Your task to perform on an android device: Show me recent news Image 0: 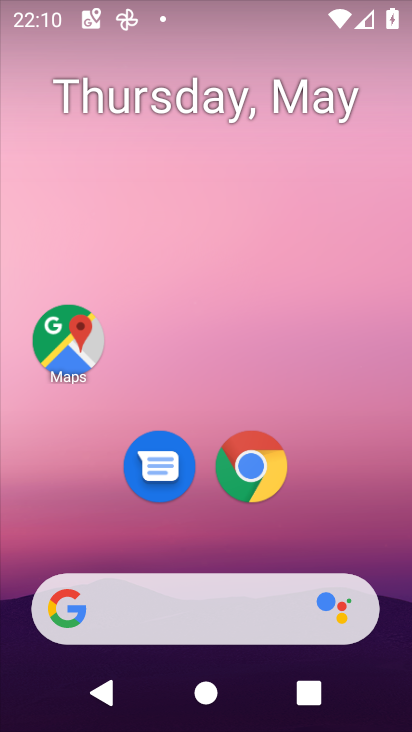
Step 0: drag from (345, 540) to (346, 204)
Your task to perform on an android device: Show me recent news Image 1: 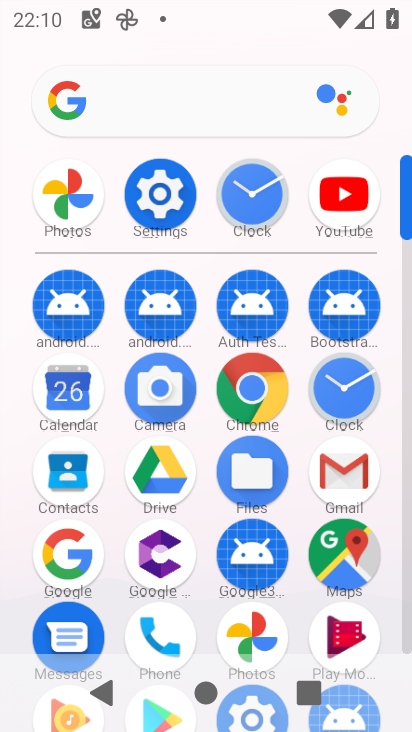
Step 1: click (157, 216)
Your task to perform on an android device: Show me recent news Image 2: 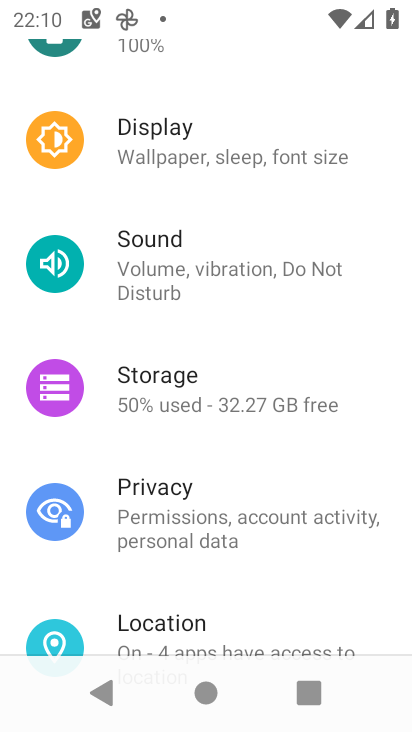
Step 2: drag from (209, 268) to (201, 559)
Your task to perform on an android device: Show me recent news Image 3: 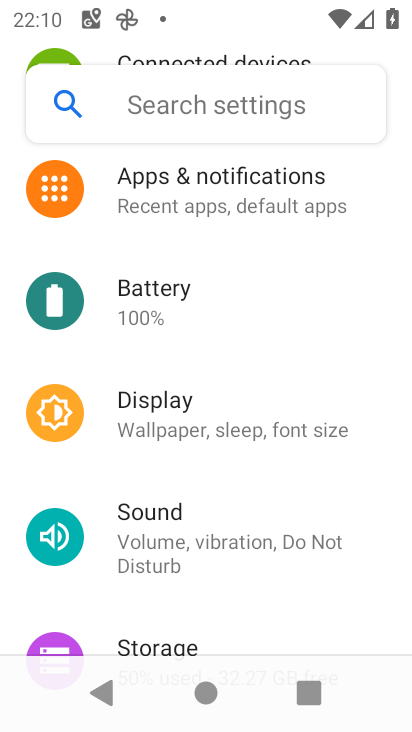
Step 3: press home button
Your task to perform on an android device: Show me recent news Image 4: 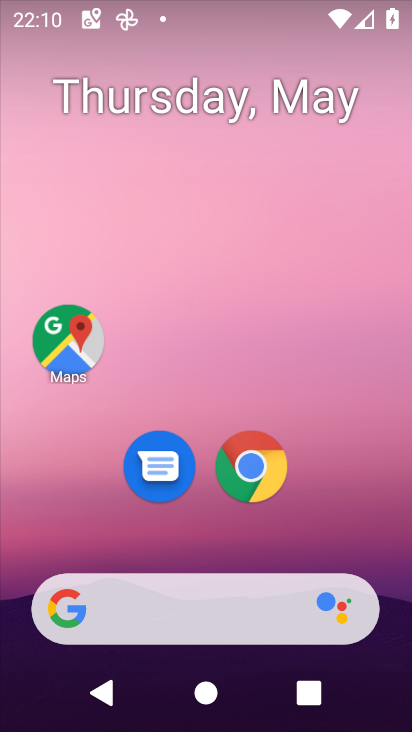
Step 4: click (222, 594)
Your task to perform on an android device: Show me recent news Image 5: 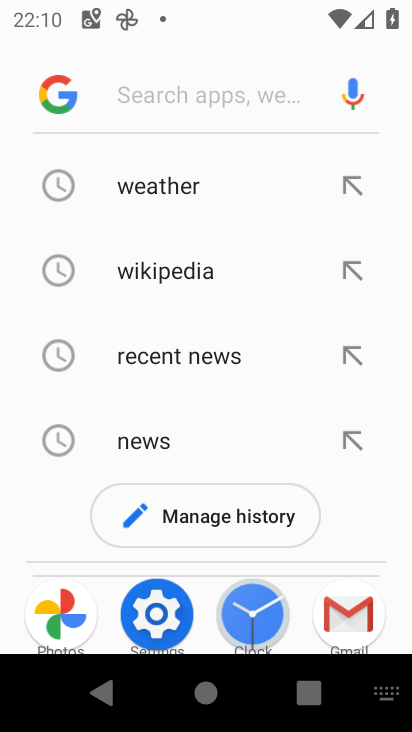
Step 5: click (178, 443)
Your task to perform on an android device: Show me recent news Image 6: 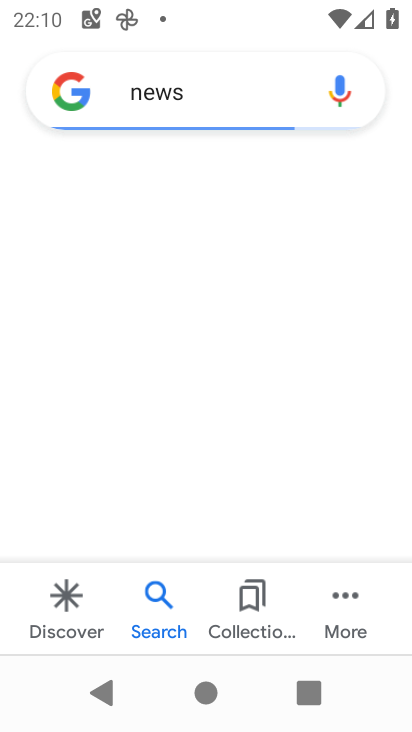
Step 6: task complete